Your task to perform on an android device: refresh tabs in the chrome app Image 0: 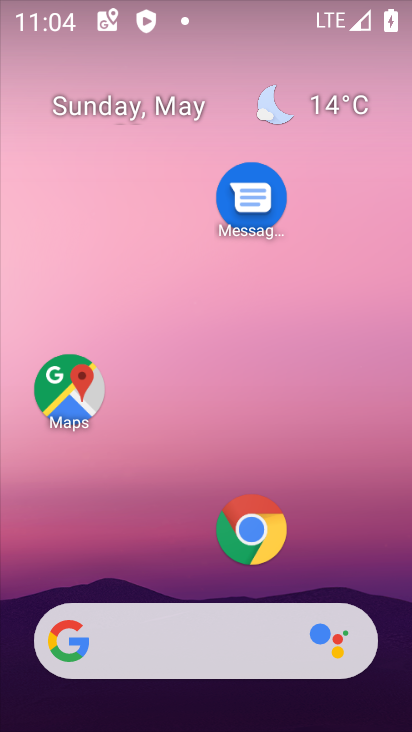
Step 0: click (253, 542)
Your task to perform on an android device: refresh tabs in the chrome app Image 1: 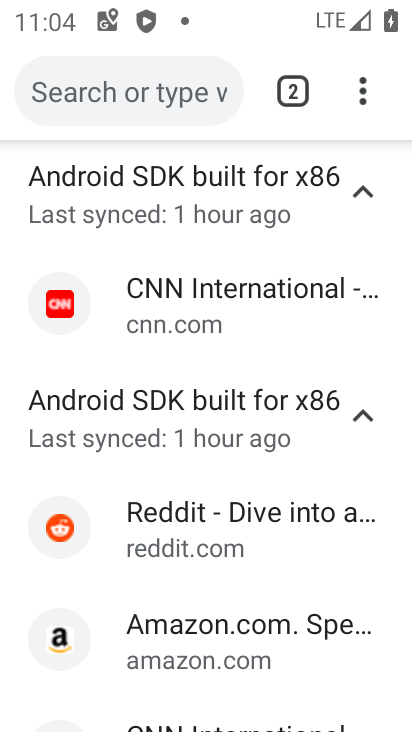
Step 1: click (348, 86)
Your task to perform on an android device: refresh tabs in the chrome app Image 2: 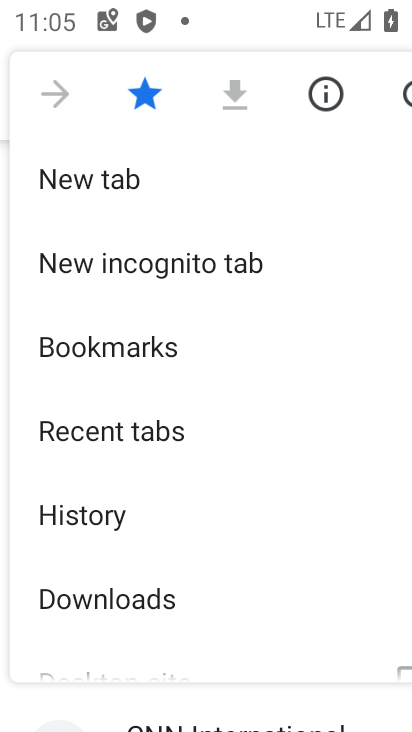
Step 2: click (404, 91)
Your task to perform on an android device: refresh tabs in the chrome app Image 3: 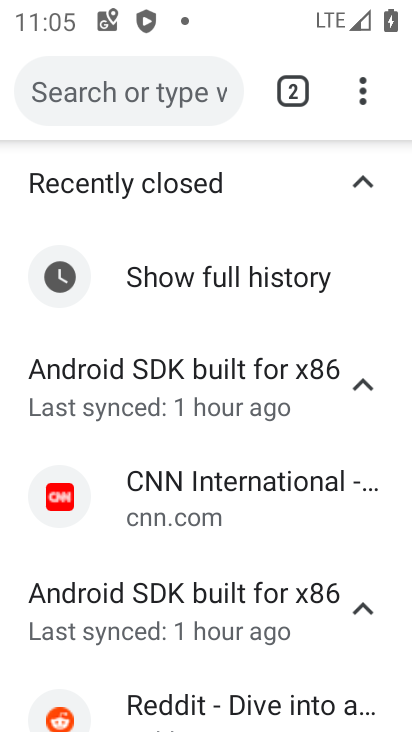
Step 3: task complete